Your task to perform on an android device: Open Yahoo.com Image 0: 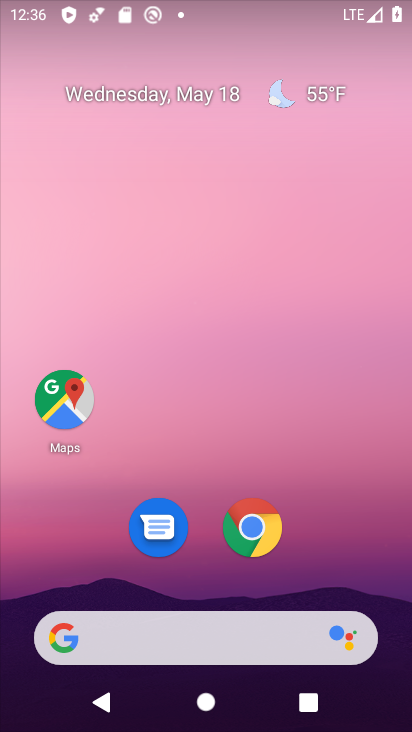
Step 0: click (252, 523)
Your task to perform on an android device: Open Yahoo.com Image 1: 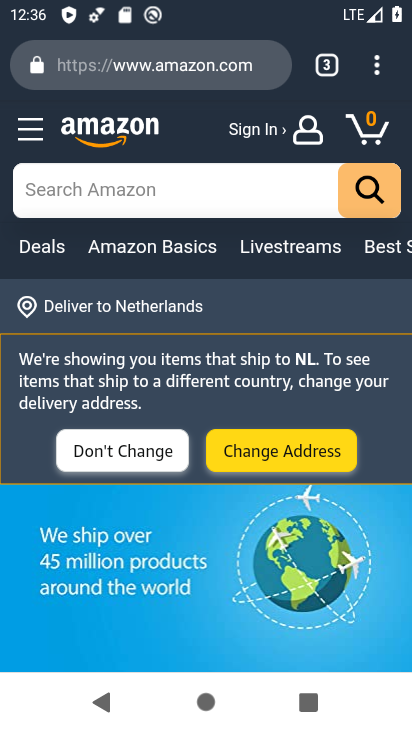
Step 1: click (333, 59)
Your task to perform on an android device: Open Yahoo.com Image 2: 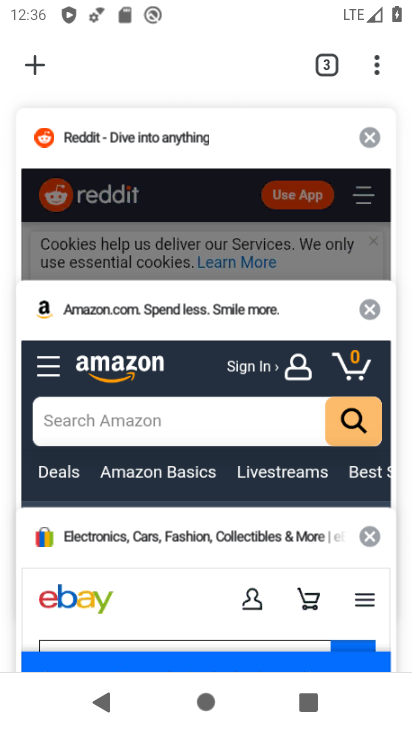
Step 2: click (33, 53)
Your task to perform on an android device: Open Yahoo.com Image 3: 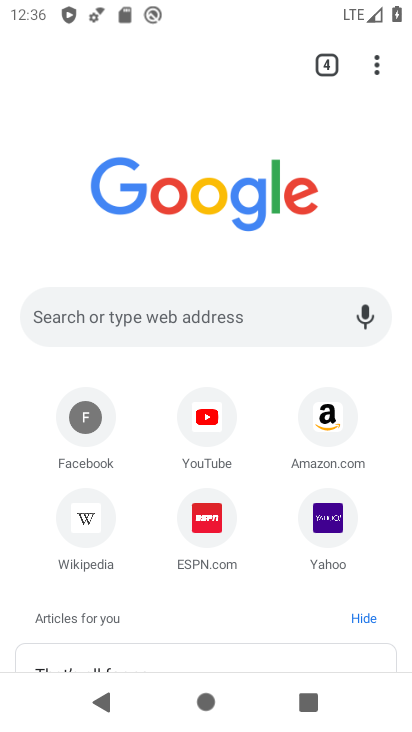
Step 3: click (333, 494)
Your task to perform on an android device: Open Yahoo.com Image 4: 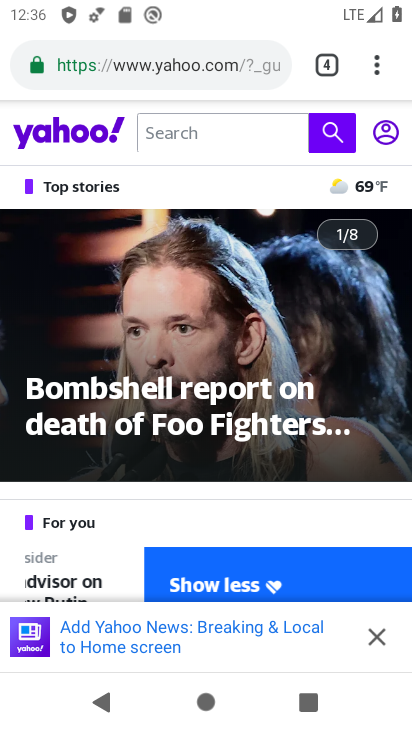
Step 4: task complete